Your task to perform on an android device: open a new tab in the chrome app Image 0: 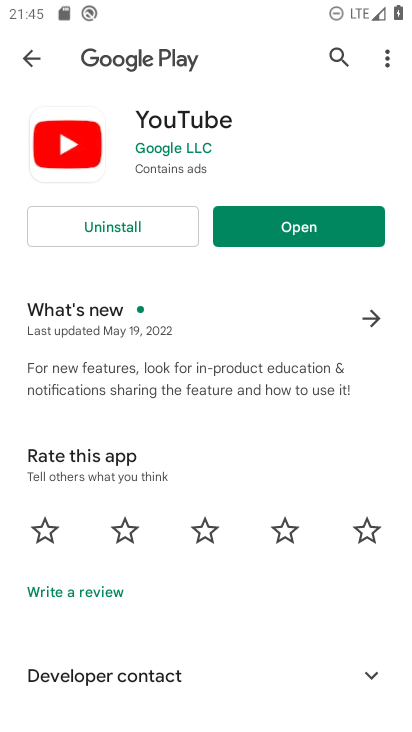
Step 0: press back button
Your task to perform on an android device: open a new tab in the chrome app Image 1: 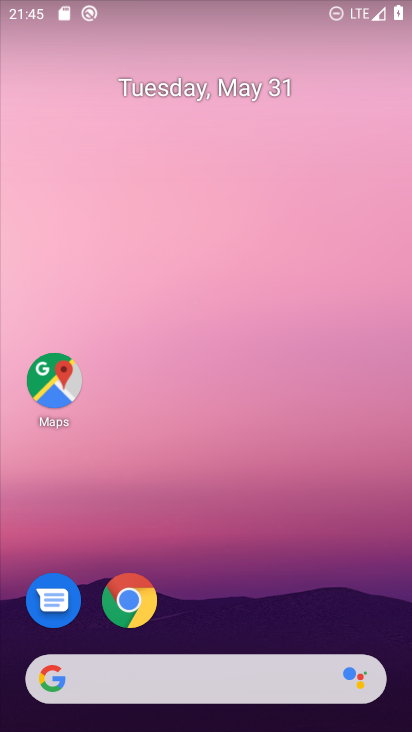
Step 1: click (115, 603)
Your task to perform on an android device: open a new tab in the chrome app Image 2: 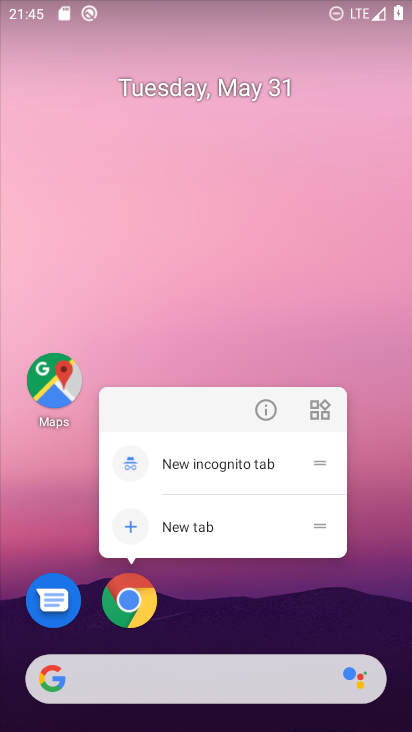
Step 2: click (129, 604)
Your task to perform on an android device: open a new tab in the chrome app Image 3: 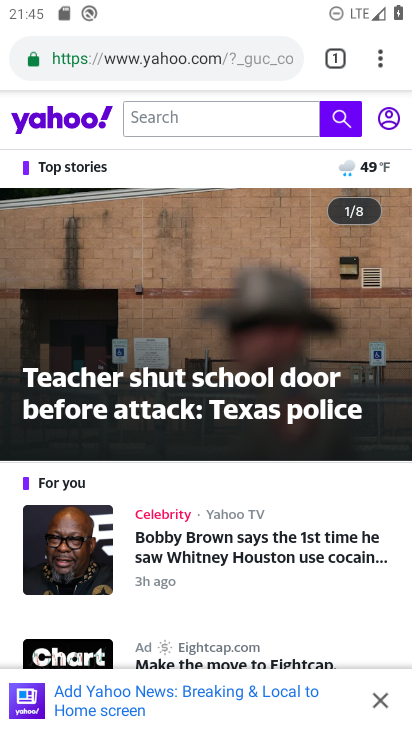
Step 3: click (331, 49)
Your task to perform on an android device: open a new tab in the chrome app Image 4: 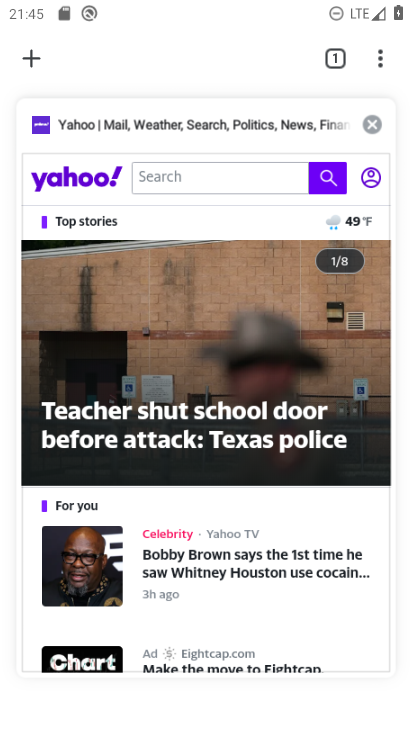
Step 4: click (37, 56)
Your task to perform on an android device: open a new tab in the chrome app Image 5: 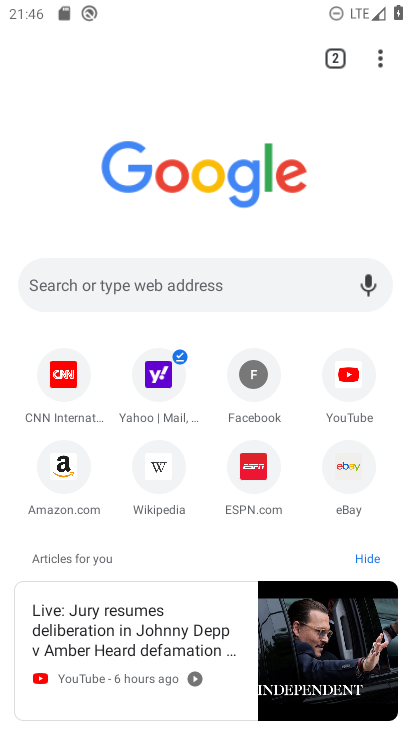
Step 5: task complete